Your task to perform on an android device: turn on location history Image 0: 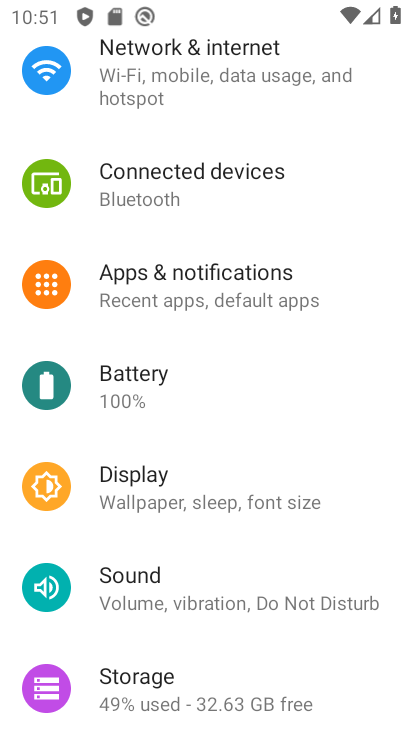
Step 0: press home button
Your task to perform on an android device: turn on location history Image 1: 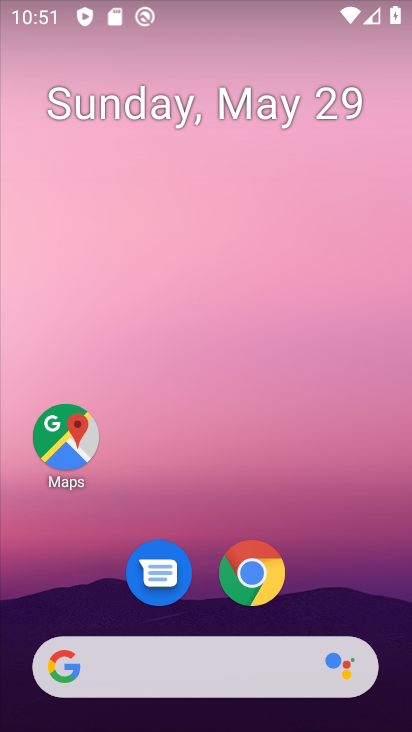
Step 1: drag from (343, 572) to (314, 203)
Your task to perform on an android device: turn on location history Image 2: 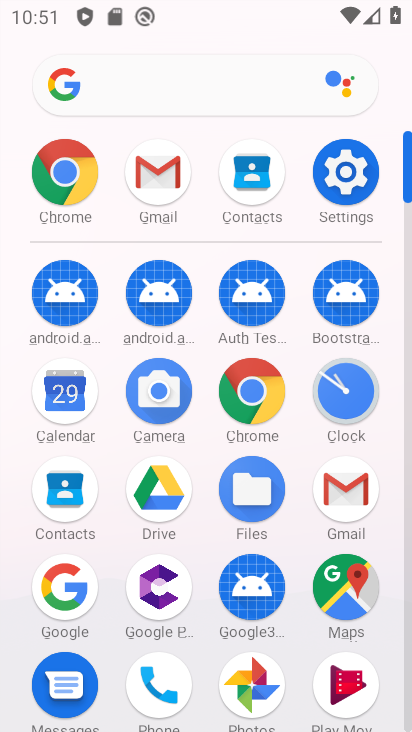
Step 2: click (348, 197)
Your task to perform on an android device: turn on location history Image 3: 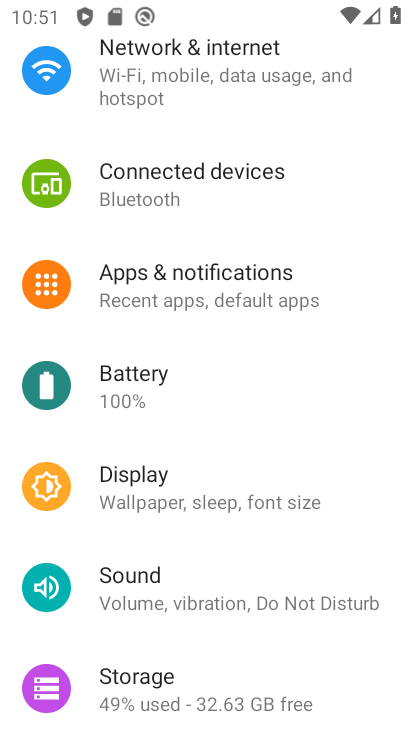
Step 3: drag from (347, 668) to (323, 340)
Your task to perform on an android device: turn on location history Image 4: 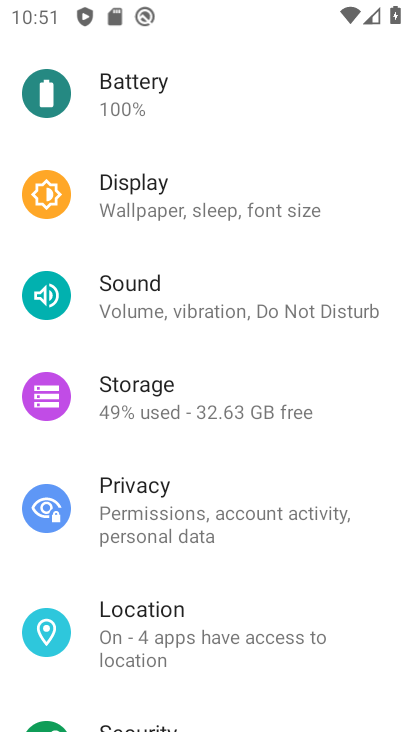
Step 4: click (249, 624)
Your task to perform on an android device: turn on location history Image 5: 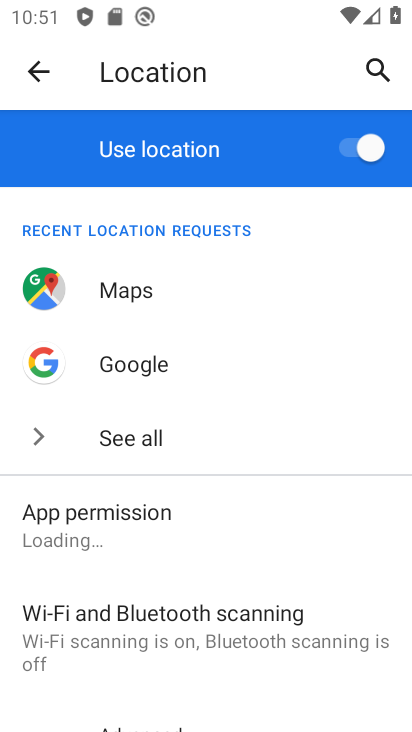
Step 5: drag from (332, 666) to (280, 238)
Your task to perform on an android device: turn on location history Image 6: 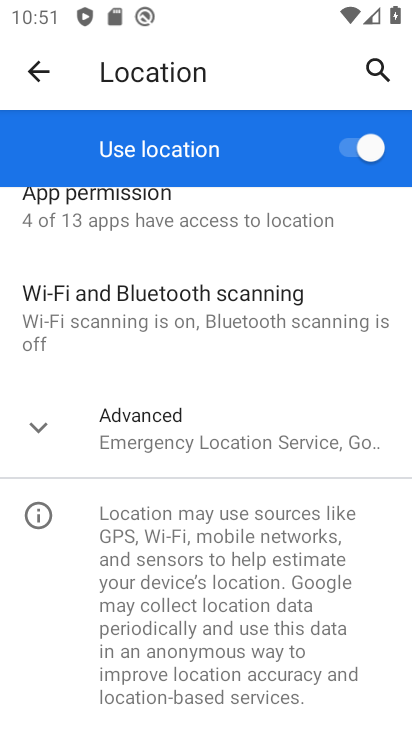
Step 6: click (41, 422)
Your task to perform on an android device: turn on location history Image 7: 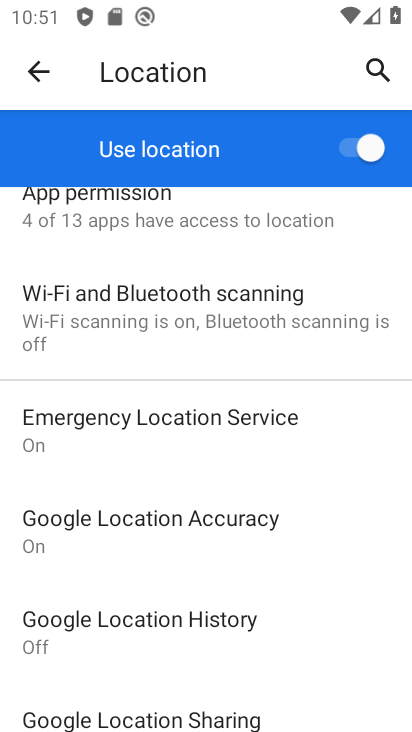
Step 7: click (186, 647)
Your task to perform on an android device: turn on location history Image 8: 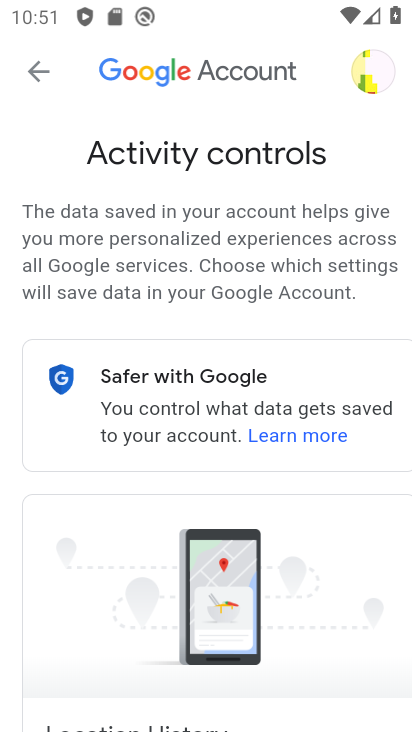
Step 8: drag from (327, 669) to (299, 323)
Your task to perform on an android device: turn on location history Image 9: 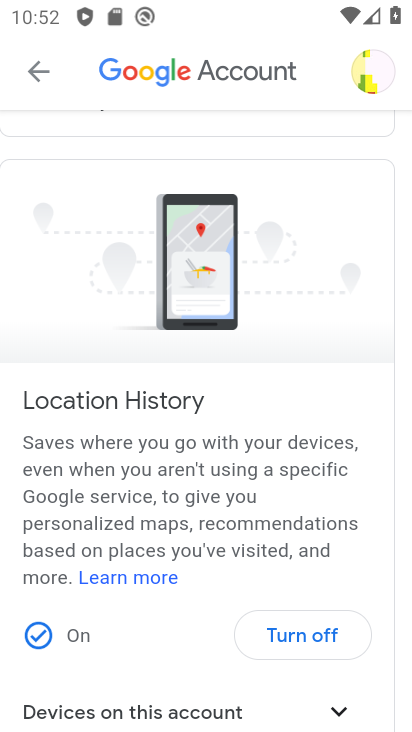
Step 9: click (39, 635)
Your task to perform on an android device: turn on location history Image 10: 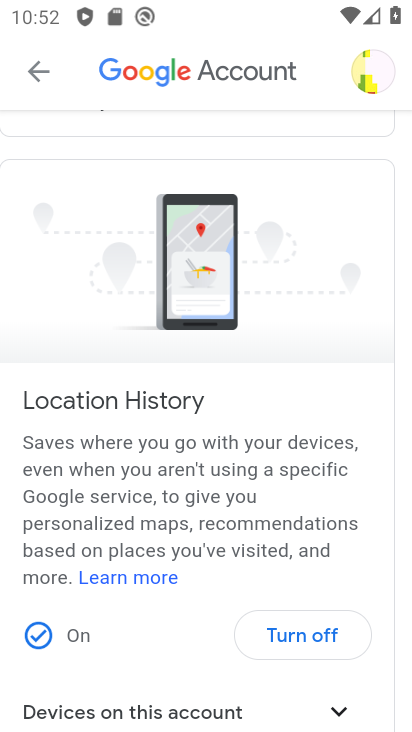
Step 10: click (343, 617)
Your task to perform on an android device: turn on location history Image 11: 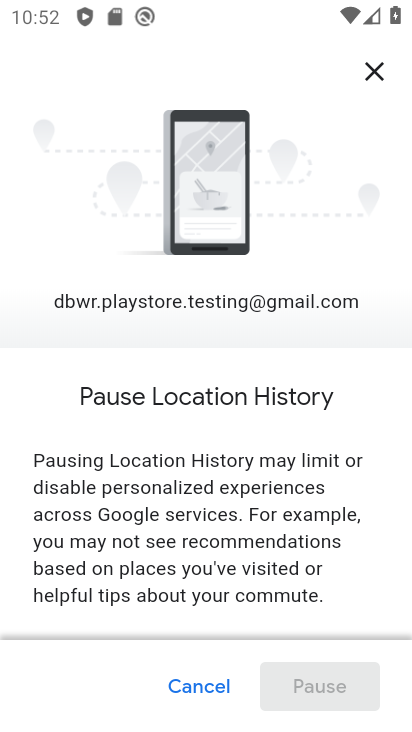
Step 11: drag from (253, 597) to (225, 264)
Your task to perform on an android device: turn on location history Image 12: 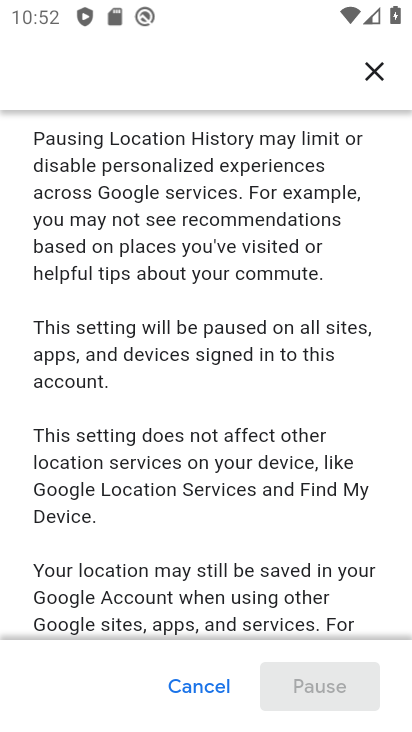
Step 12: drag from (281, 595) to (223, 151)
Your task to perform on an android device: turn on location history Image 13: 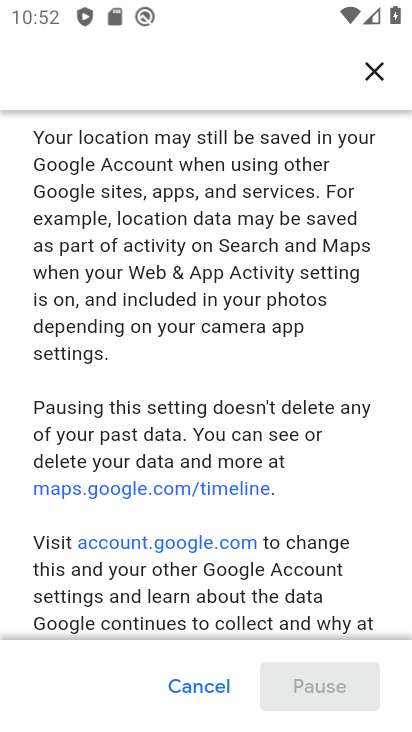
Step 13: drag from (329, 603) to (265, 184)
Your task to perform on an android device: turn on location history Image 14: 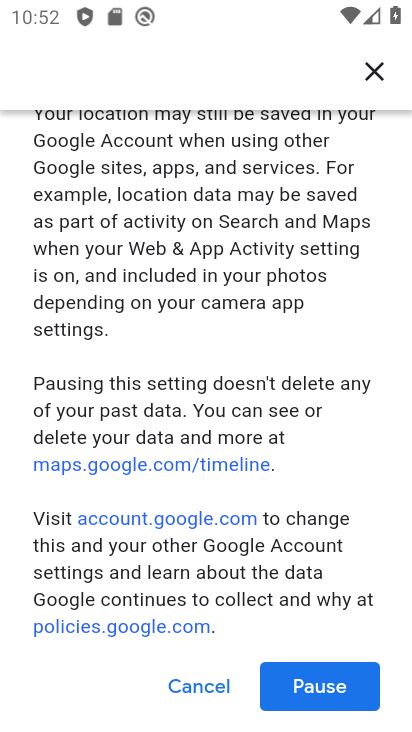
Step 14: click (330, 698)
Your task to perform on an android device: turn on location history Image 15: 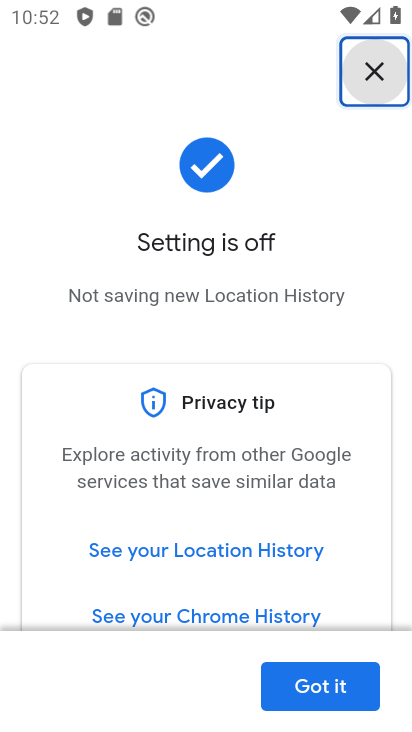
Step 15: click (344, 699)
Your task to perform on an android device: turn on location history Image 16: 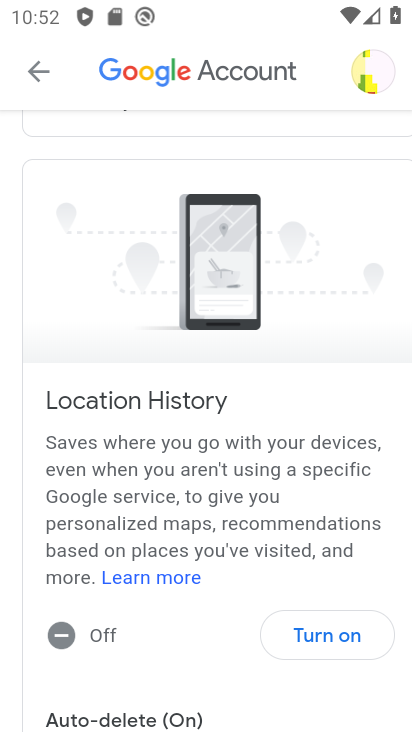
Step 16: task complete